Your task to perform on an android device: turn off picture-in-picture Image 0: 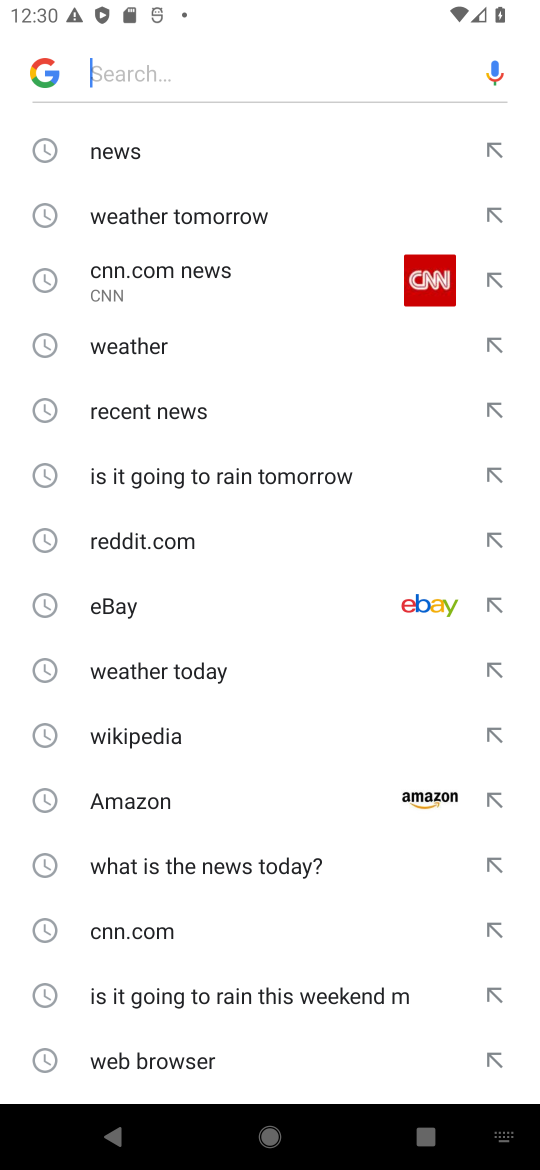
Step 0: press home button
Your task to perform on an android device: turn off picture-in-picture Image 1: 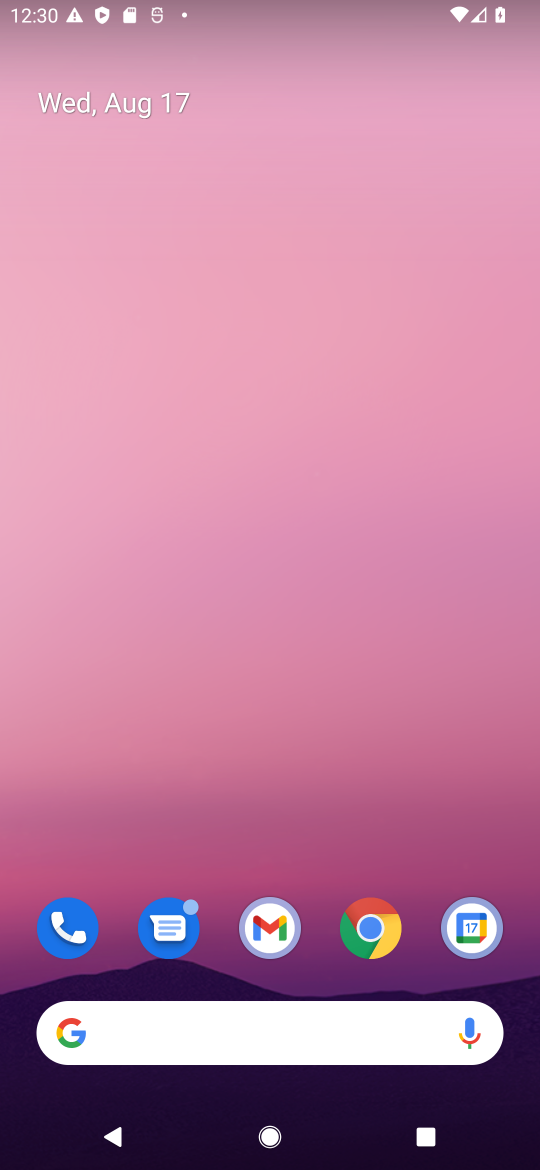
Step 1: click (368, 920)
Your task to perform on an android device: turn off picture-in-picture Image 2: 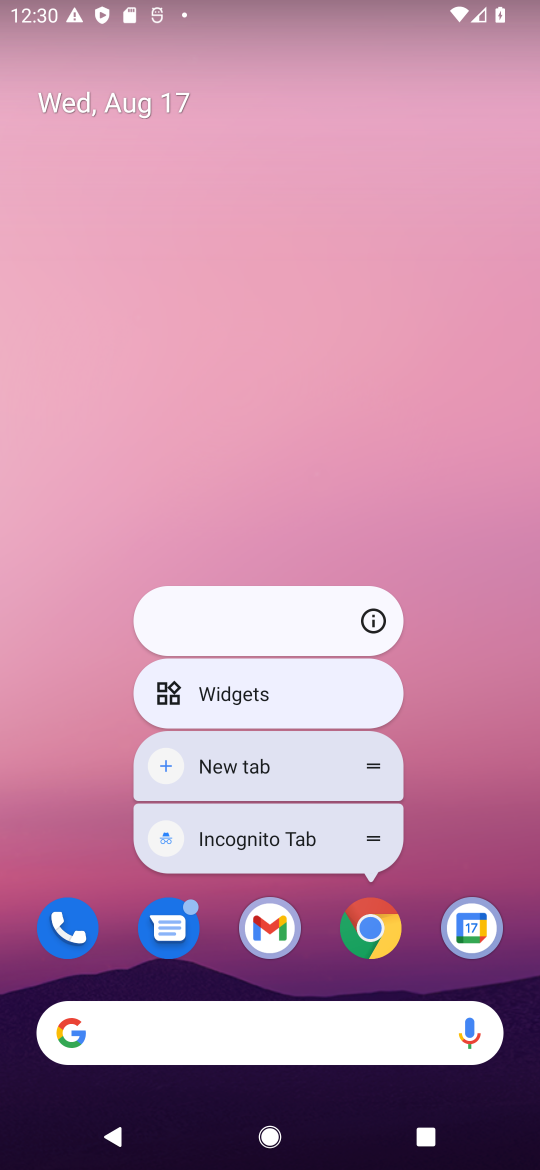
Step 2: click (373, 627)
Your task to perform on an android device: turn off picture-in-picture Image 3: 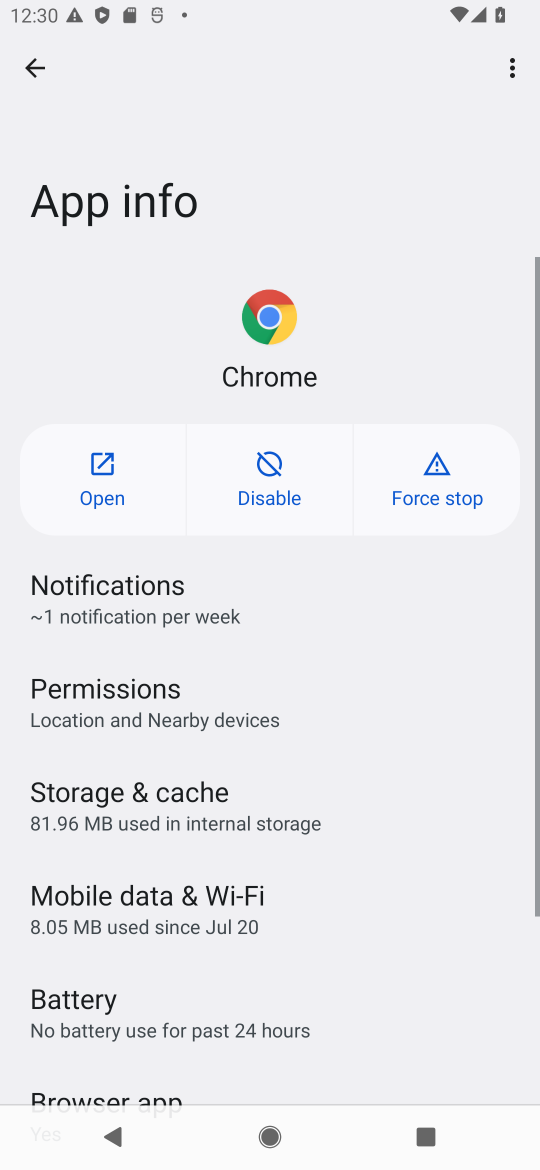
Step 3: drag from (377, 963) to (345, 336)
Your task to perform on an android device: turn off picture-in-picture Image 4: 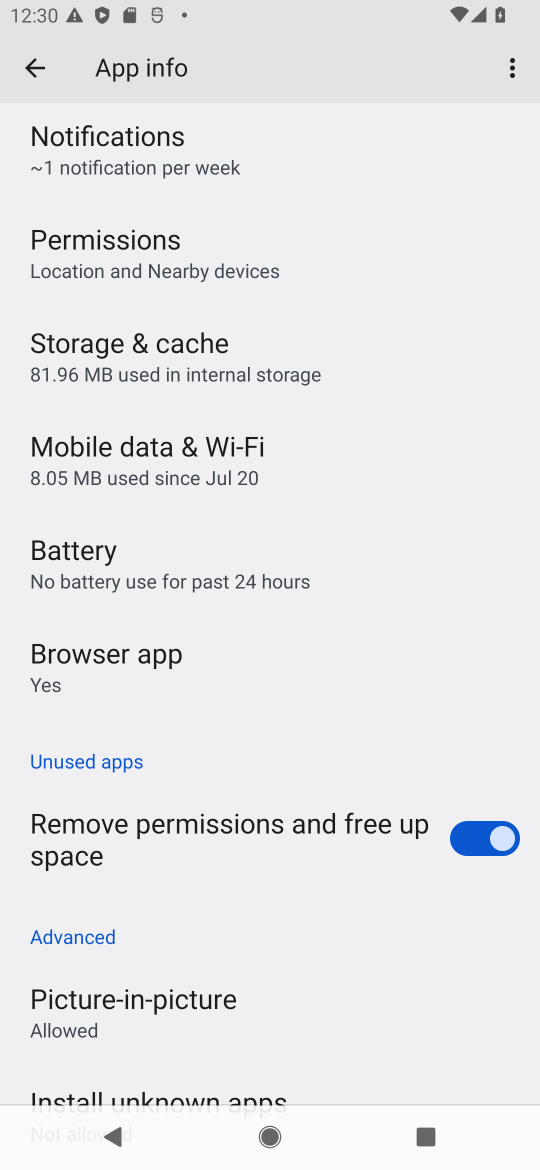
Step 4: drag from (289, 942) to (333, 374)
Your task to perform on an android device: turn off picture-in-picture Image 5: 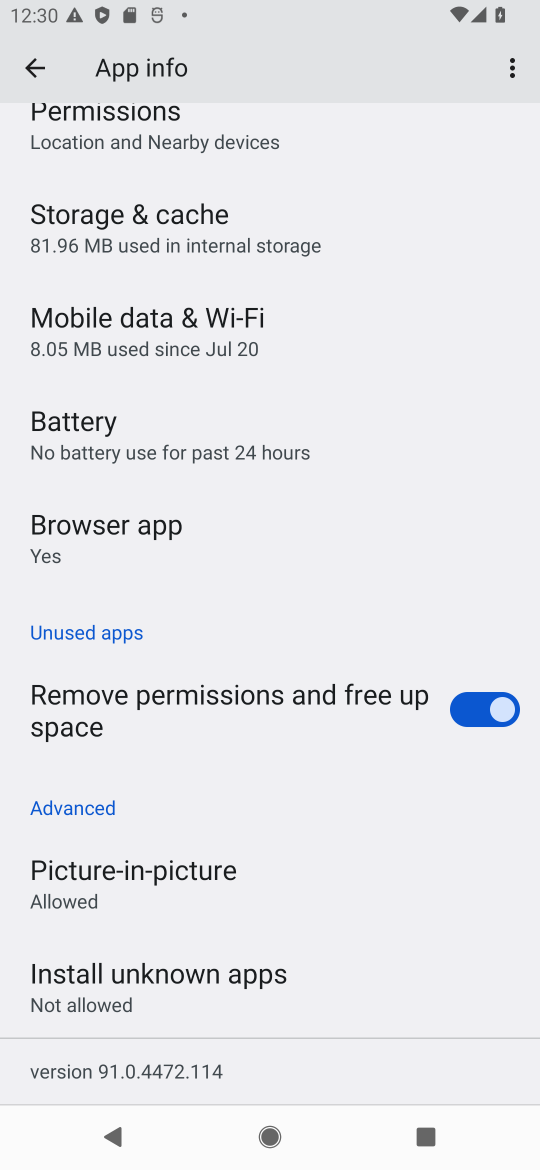
Step 5: click (122, 904)
Your task to perform on an android device: turn off picture-in-picture Image 6: 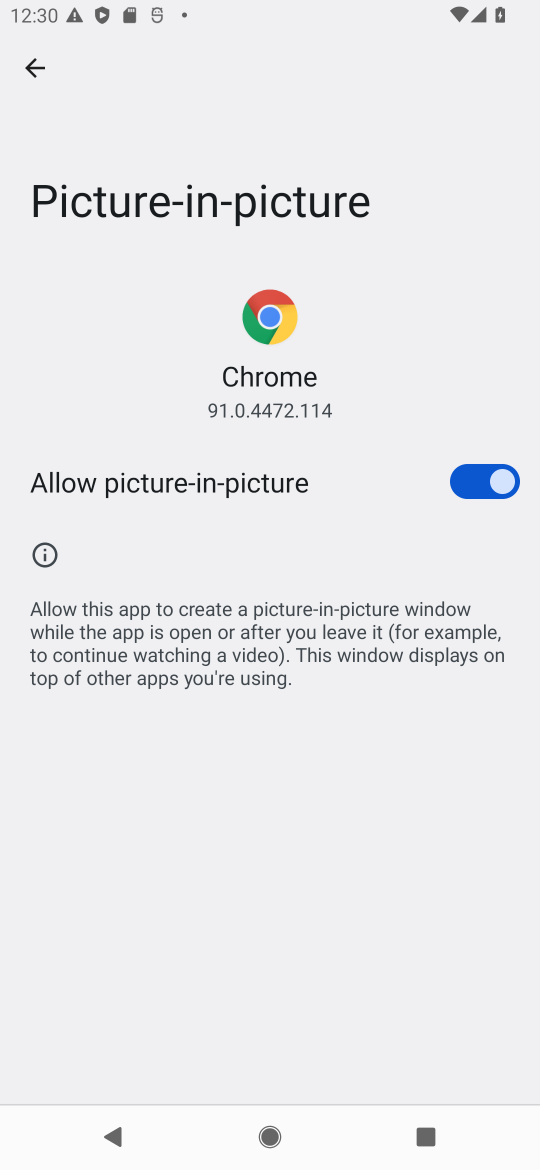
Step 6: click (455, 466)
Your task to perform on an android device: turn off picture-in-picture Image 7: 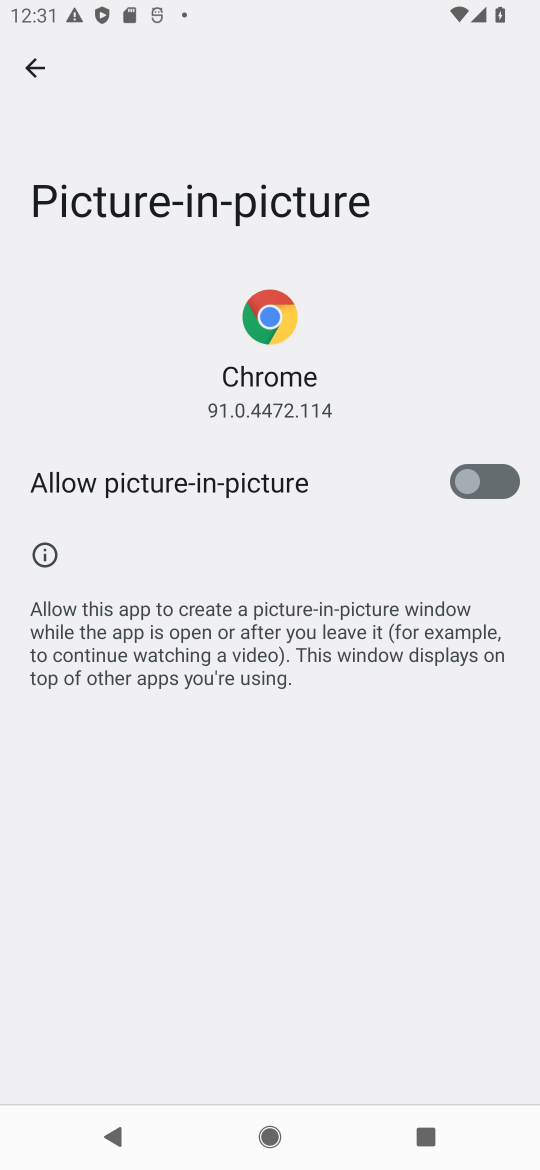
Step 7: task complete